Your task to perform on an android device: Show me productivity apps on the Play Store Image 0: 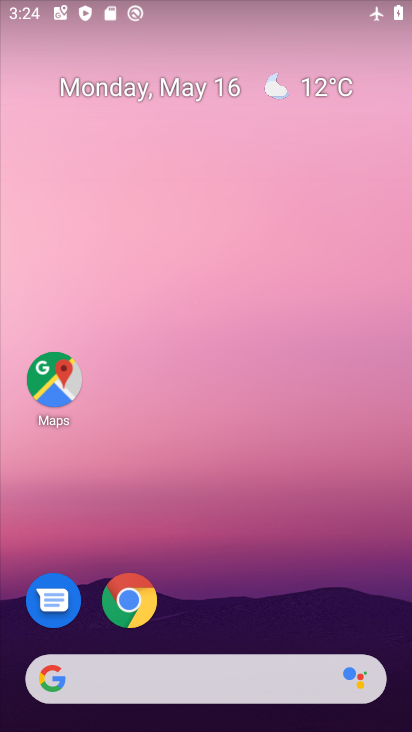
Step 0: drag from (146, 636) to (122, 80)
Your task to perform on an android device: Show me productivity apps on the Play Store Image 1: 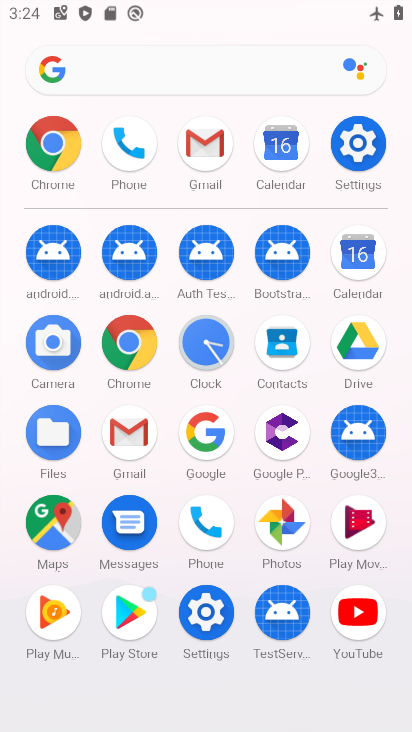
Step 1: click (139, 618)
Your task to perform on an android device: Show me productivity apps on the Play Store Image 2: 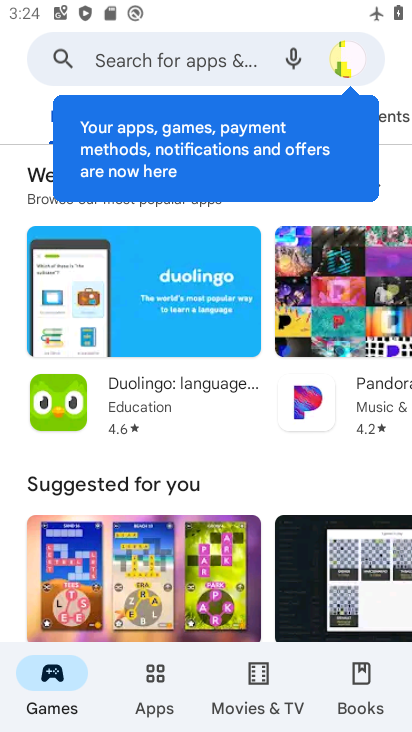
Step 2: click (164, 659)
Your task to perform on an android device: Show me productivity apps on the Play Store Image 3: 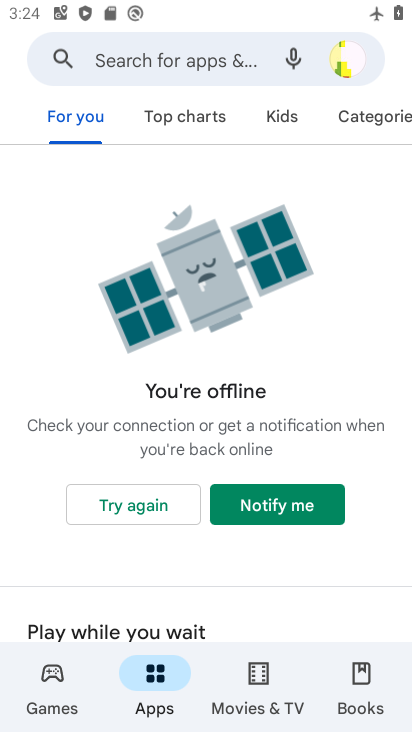
Step 3: click (393, 122)
Your task to perform on an android device: Show me productivity apps on the Play Store Image 4: 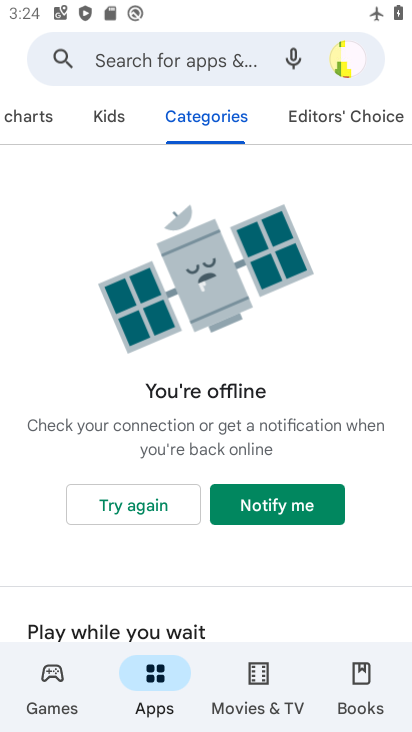
Step 4: task complete